Your task to perform on an android device: toggle airplane mode Image 0: 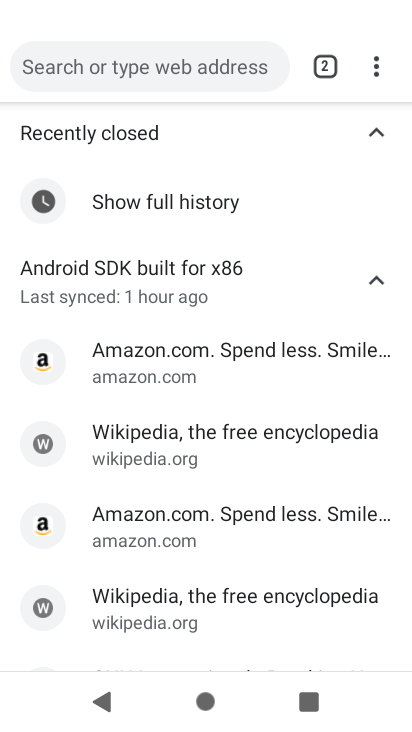
Step 0: press home button
Your task to perform on an android device: toggle airplane mode Image 1: 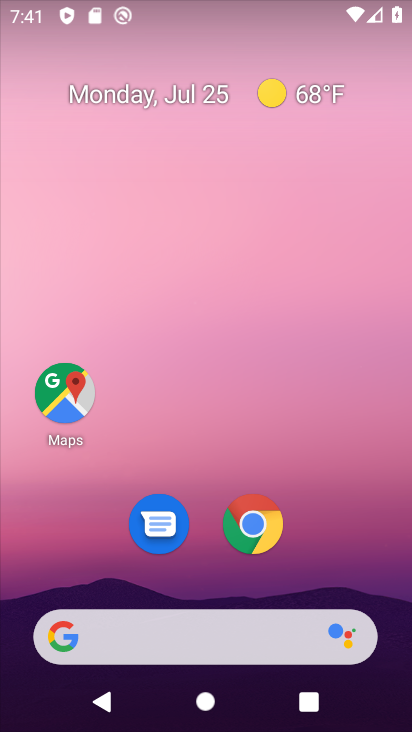
Step 1: drag from (324, 546) to (294, 24)
Your task to perform on an android device: toggle airplane mode Image 2: 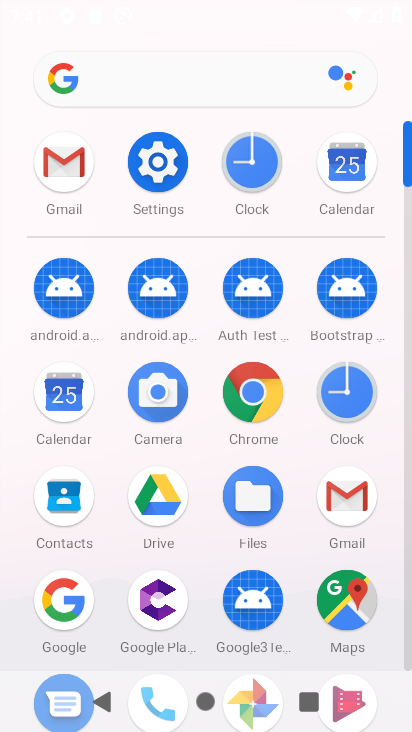
Step 2: click (150, 154)
Your task to perform on an android device: toggle airplane mode Image 3: 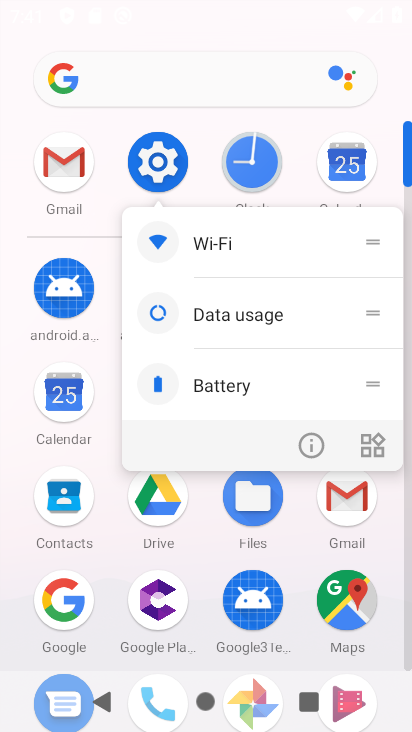
Step 3: click (155, 164)
Your task to perform on an android device: toggle airplane mode Image 4: 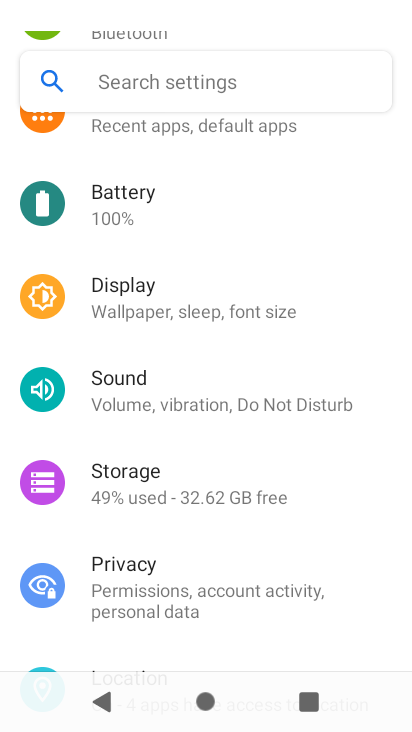
Step 4: drag from (234, 224) to (228, 496)
Your task to perform on an android device: toggle airplane mode Image 5: 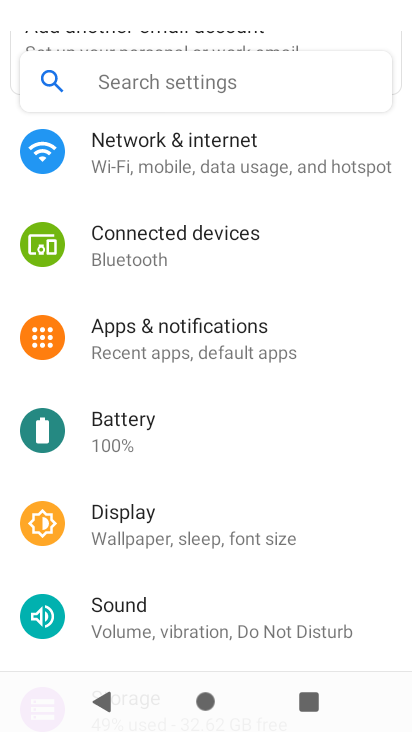
Step 5: click (241, 153)
Your task to perform on an android device: toggle airplane mode Image 6: 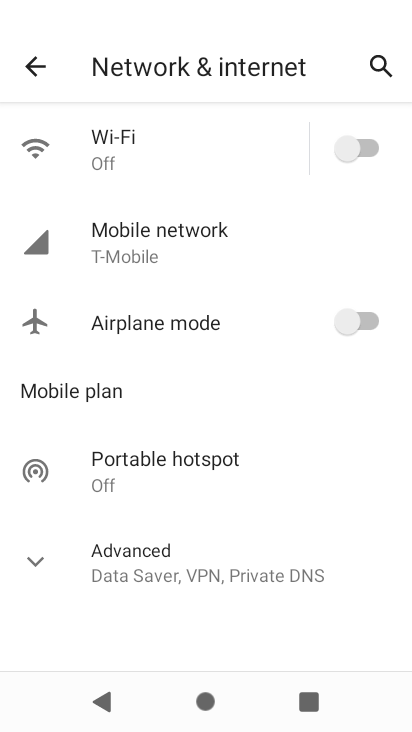
Step 6: click (356, 317)
Your task to perform on an android device: toggle airplane mode Image 7: 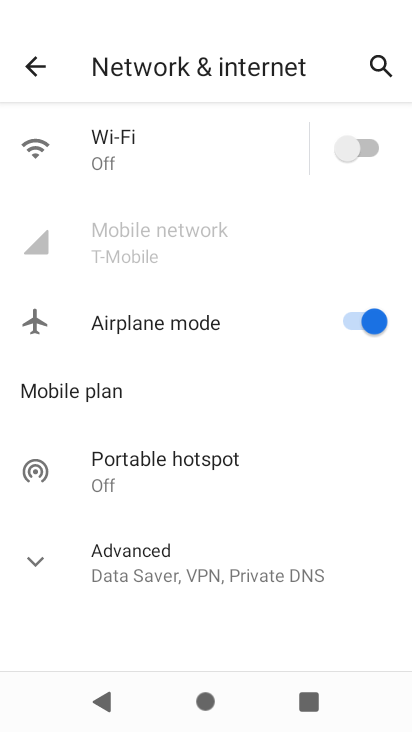
Step 7: task complete